Your task to perform on an android device: turn smart compose on in the gmail app Image 0: 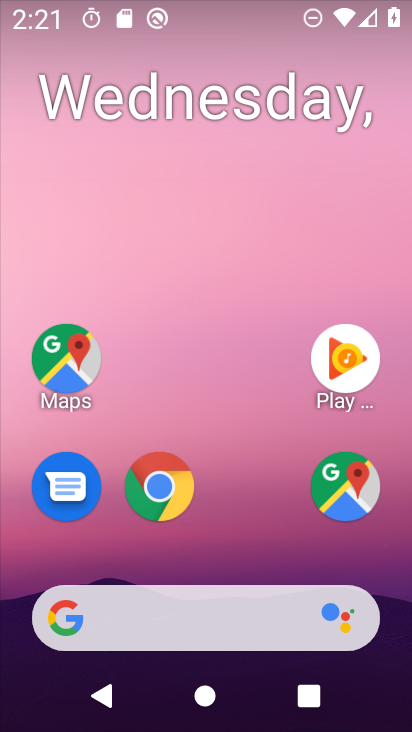
Step 0: press home button
Your task to perform on an android device: turn smart compose on in the gmail app Image 1: 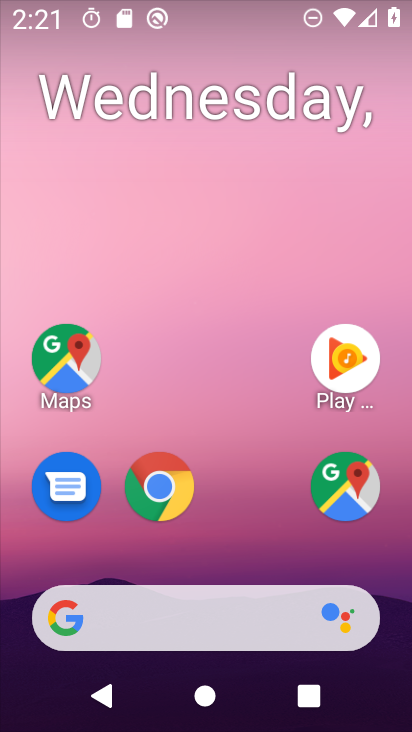
Step 1: drag from (239, 510) to (254, 180)
Your task to perform on an android device: turn smart compose on in the gmail app Image 2: 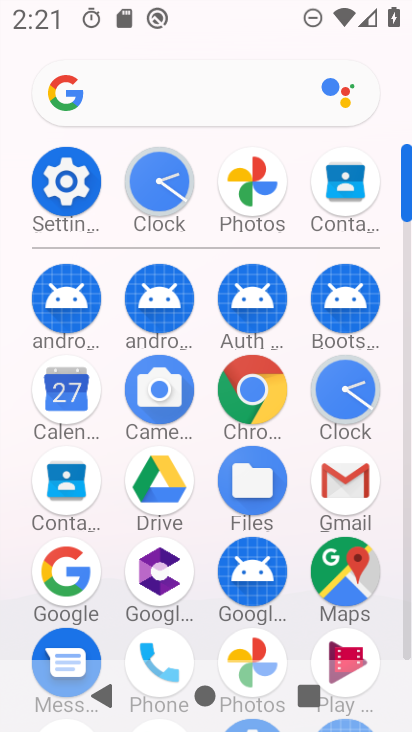
Step 2: click (362, 484)
Your task to perform on an android device: turn smart compose on in the gmail app Image 3: 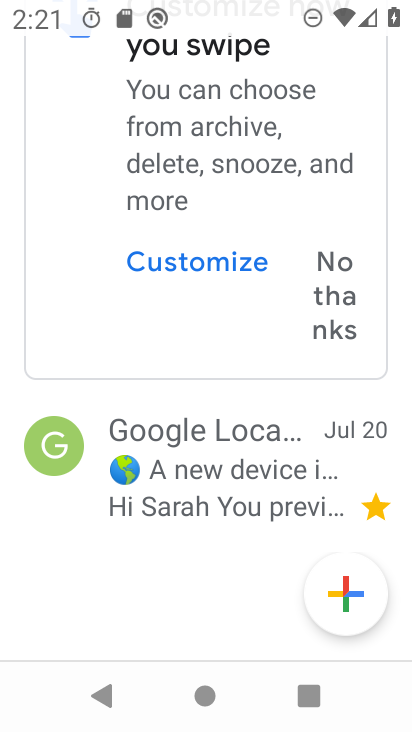
Step 3: drag from (152, 162) to (176, 409)
Your task to perform on an android device: turn smart compose on in the gmail app Image 4: 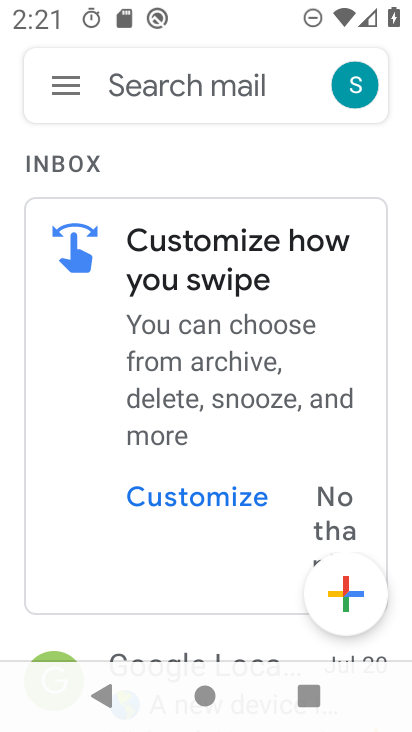
Step 4: click (66, 97)
Your task to perform on an android device: turn smart compose on in the gmail app Image 5: 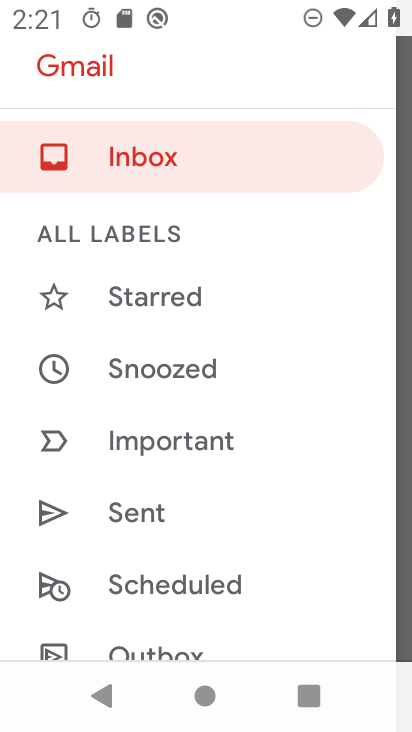
Step 5: drag from (318, 465) to (315, 379)
Your task to perform on an android device: turn smart compose on in the gmail app Image 6: 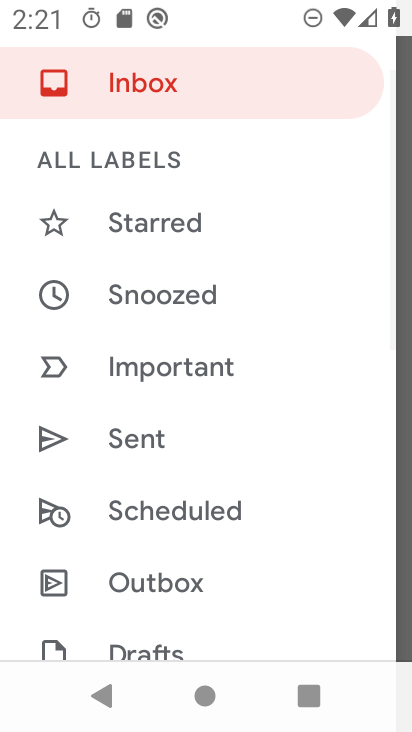
Step 6: drag from (297, 535) to (293, 419)
Your task to perform on an android device: turn smart compose on in the gmail app Image 7: 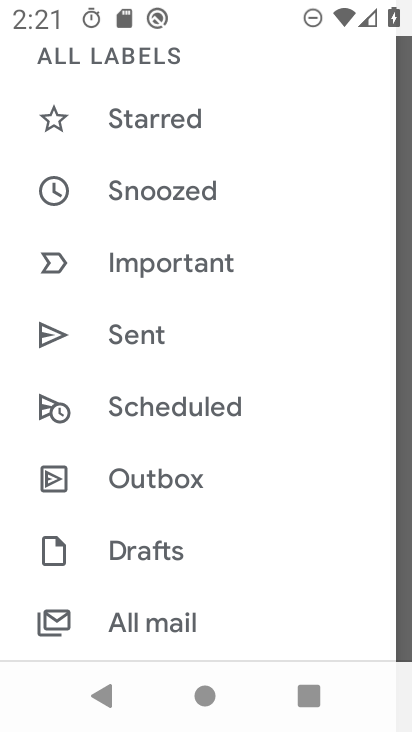
Step 7: drag from (273, 536) to (270, 427)
Your task to perform on an android device: turn smart compose on in the gmail app Image 8: 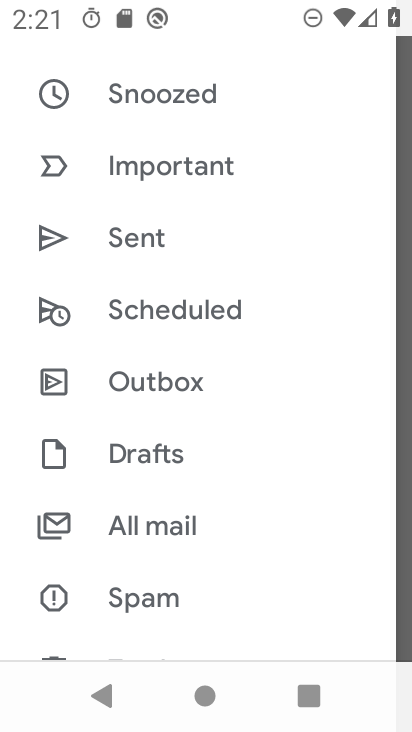
Step 8: drag from (273, 532) to (277, 372)
Your task to perform on an android device: turn smart compose on in the gmail app Image 9: 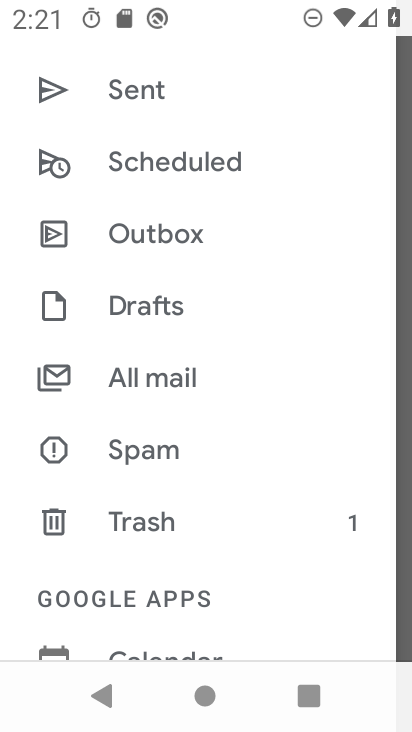
Step 9: drag from (295, 518) to (295, 395)
Your task to perform on an android device: turn smart compose on in the gmail app Image 10: 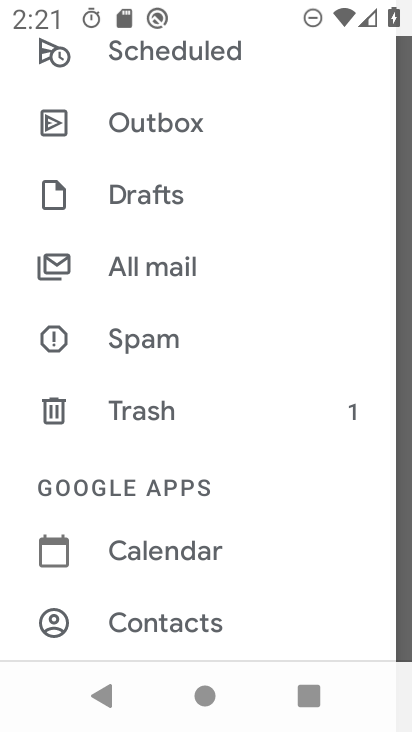
Step 10: drag from (308, 520) to (293, 358)
Your task to perform on an android device: turn smart compose on in the gmail app Image 11: 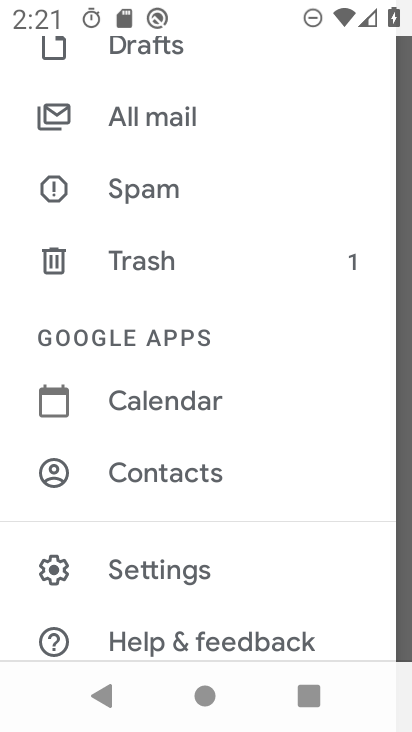
Step 11: drag from (290, 543) to (279, 417)
Your task to perform on an android device: turn smart compose on in the gmail app Image 12: 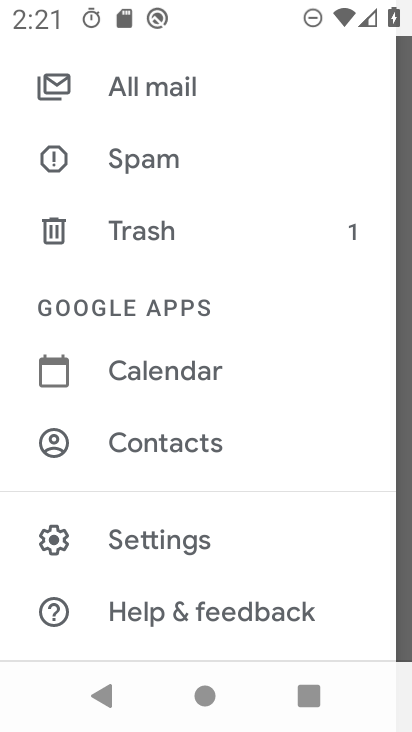
Step 12: click (254, 552)
Your task to perform on an android device: turn smart compose on in the gmail app Image 13: 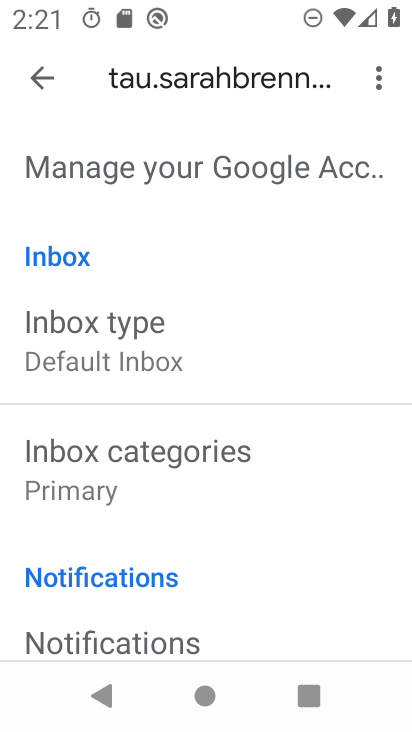
Step 13: task complete